Your task to perform on an android device: Do I have any events today? Image 0: 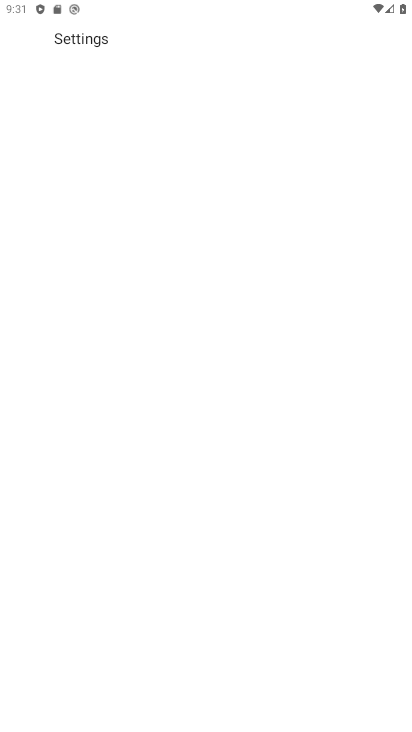
Step 0: drag from (246, 356) to (296, 67)
Your task to perform on an android device: Do I have any events today? Image 1: 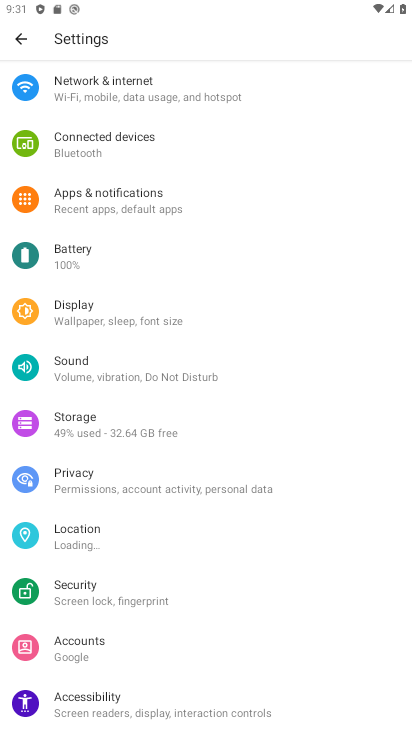
Step 1: press home button
Your task to perform on an android device: Do I have any events today? Image 2: 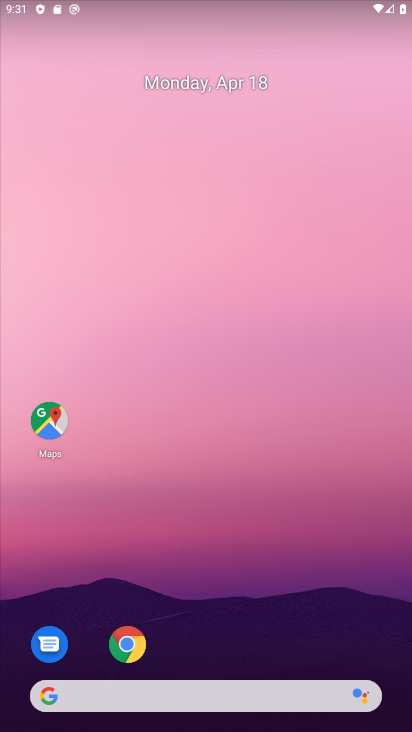
Step 2: drag from (192, 550) to (294, 194)
Your task to perform on an android device: Do I have any events today? Image 3: 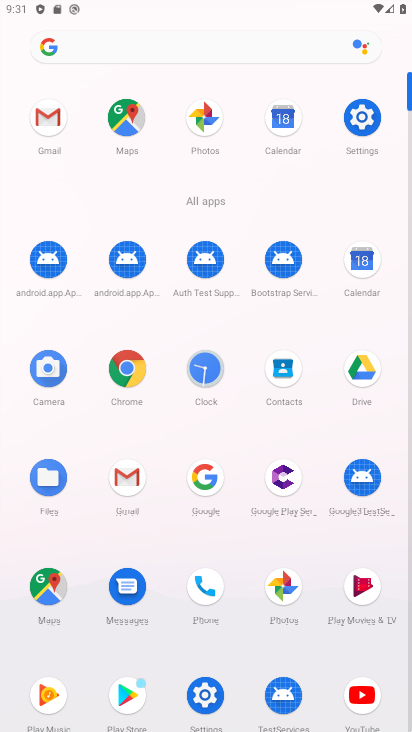
Step 3: click (362, 272)
Your task to perform on an android device: Do I have any events today? Image 4: 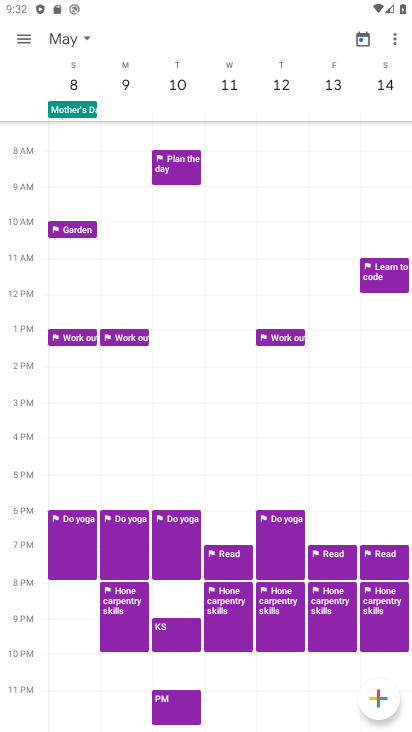
Step 4: click (22, 40)
Your task to perform on an android device: Do I have any events today? Image 5: 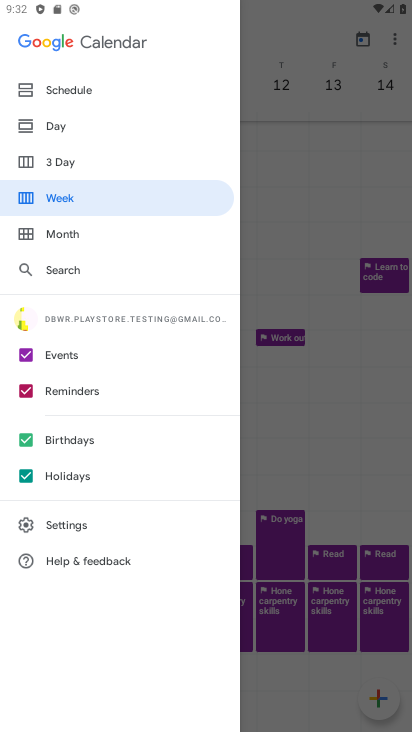
Step 5: click (327, 189)
Your task to perform on an android device: Do I have any events today? Image 6: 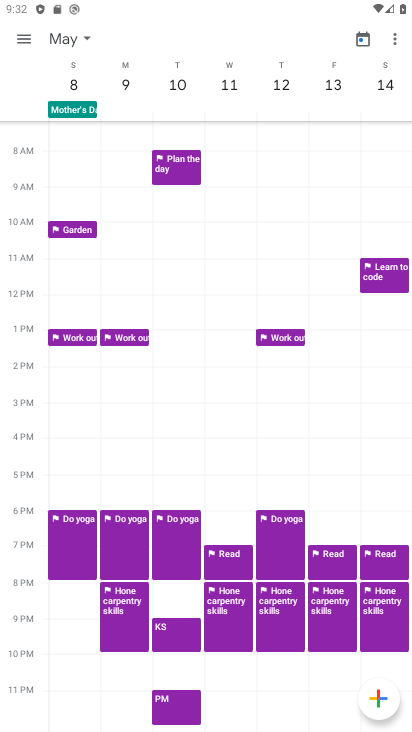
Step 6: click (75, 33)
Your task to perform on an android device: Do I have any events today? Image 7: 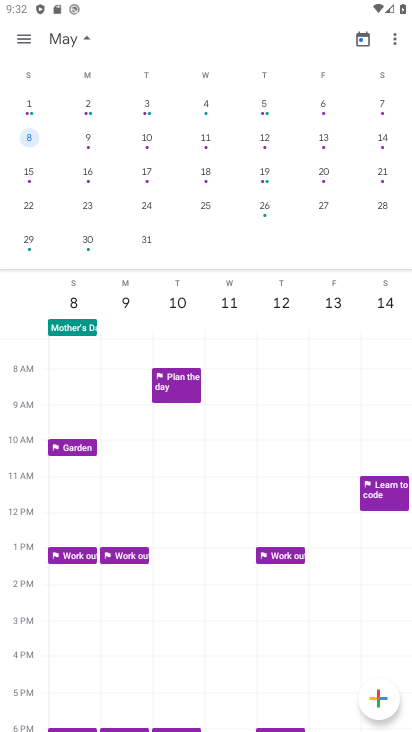
Step 7: drag from (64, 158) to (401, 178)
Your task to perform on an android device: Do I have any events today? Image 8: 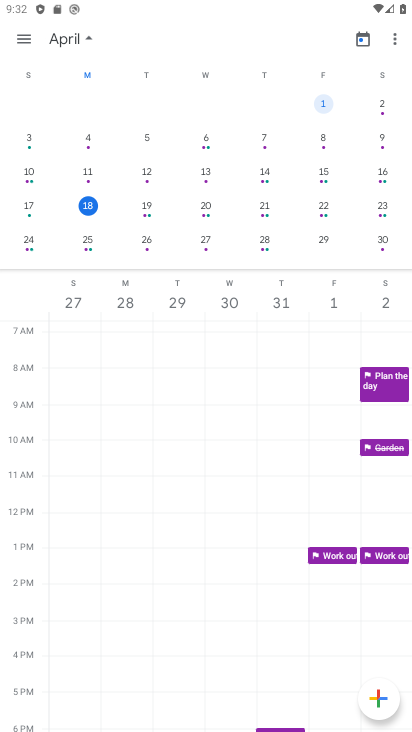
Step 8: click (26, 38)
Your task to perform on an android device: Do I have any events today? Image 9: 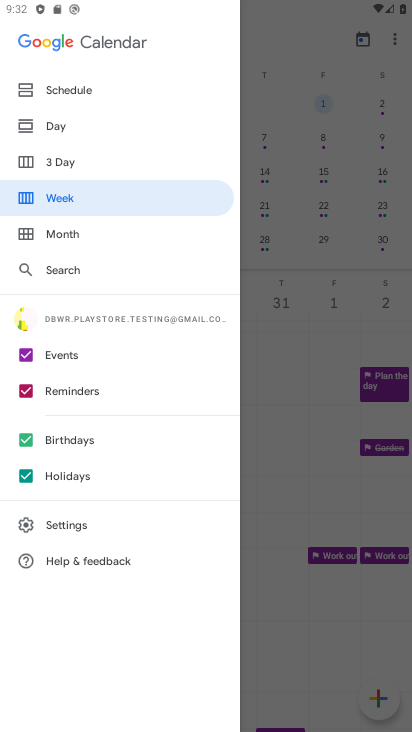
Step 9: click (63, 125)
Your task to perform on an android device: Do I have any events today? Image 10: 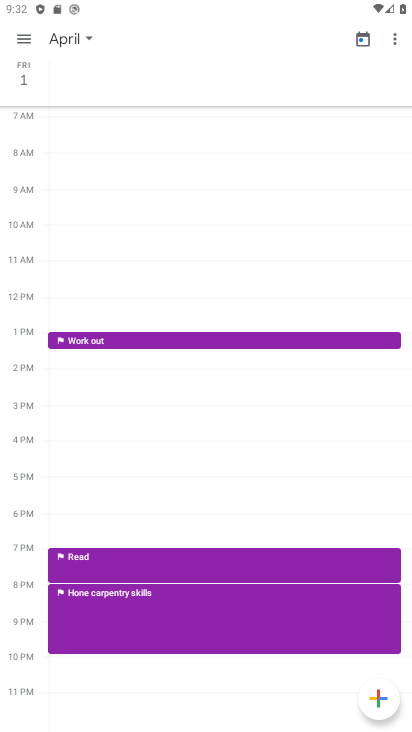
Step 10: click (82, 36)
Your task to perform on an android device: Do I have any events today? Image 11: 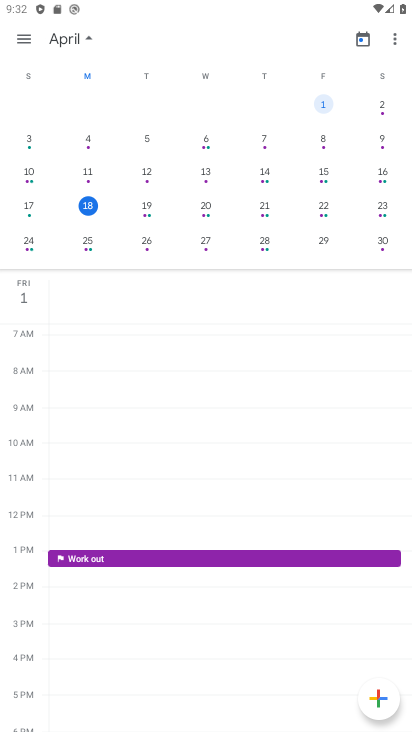
Step 11: click (87, 206)
Your task to perform on an android device: Do I have any events today? Image 12: 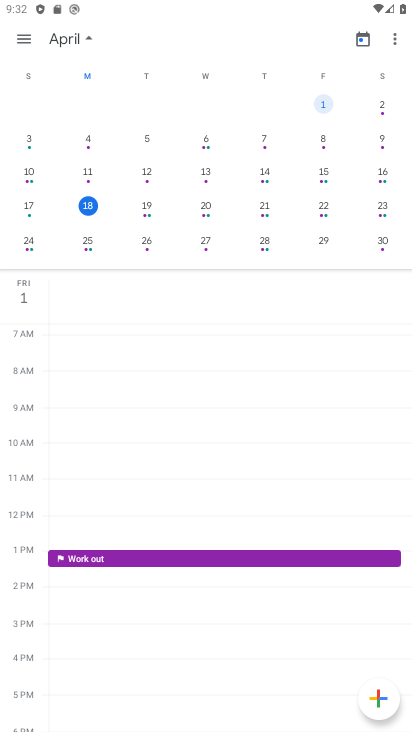
Step 12: click (27, 40)
Your task to perform on an android device: Do I have any events today? Image 13: 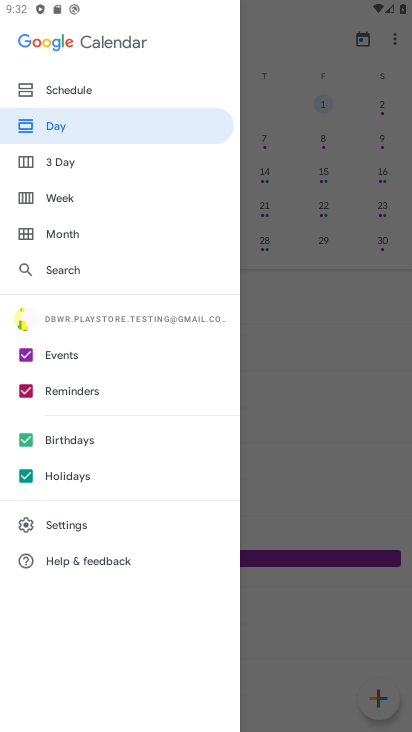
Step 13: click (107, 129)
Your task to perform on an android device: Do I have any events today? Image 14: 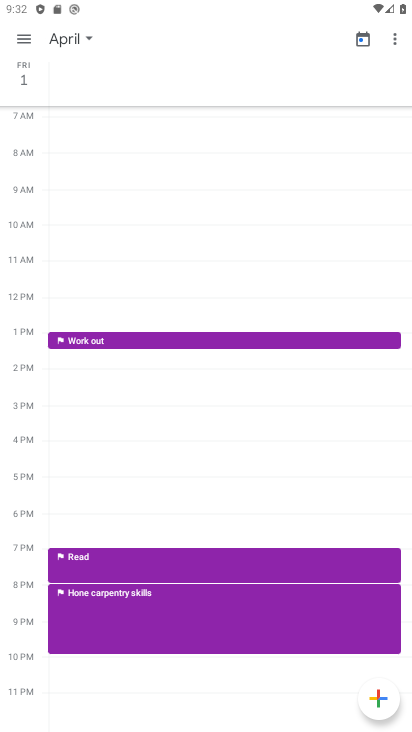
Step 14: task complete